Your task to perform on an android device: turn on translation in the chrome app Image 0: 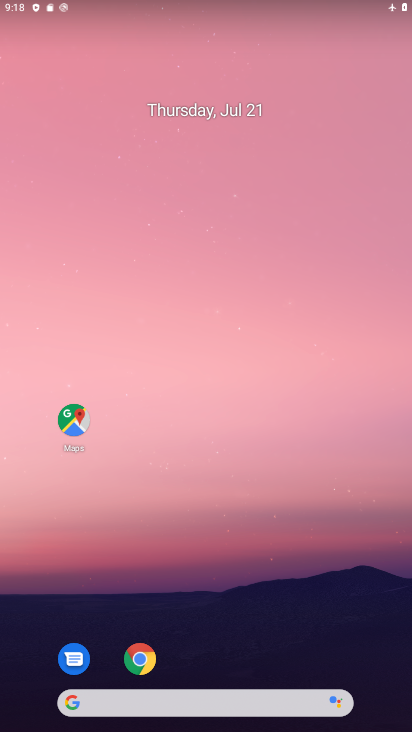
Step 0: drag from (190, 641) to (151, 6)
Your task to perform on an android device: turn on translation in the chrome app Image 1: 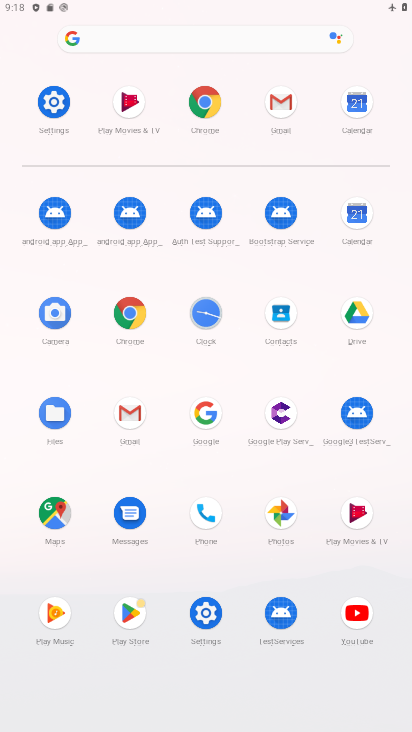
Step 1: click (195, 147)
Your task to perform on an android device: turn on translation in the chrome app Image 2: 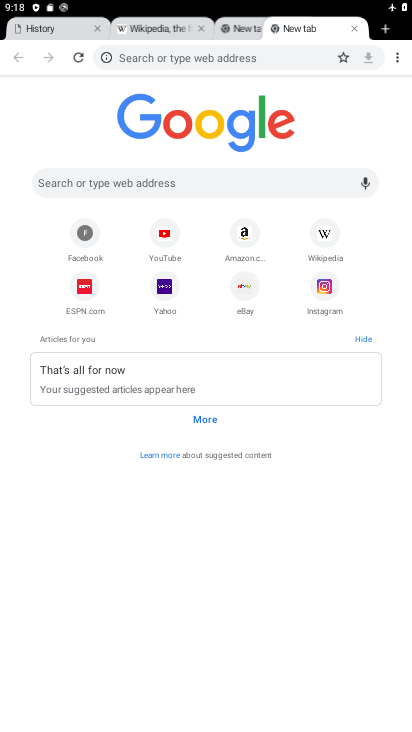
Step 2: click (391, 59)
Your task to perform on an android device: turn on translation in the chrome app Image 3: 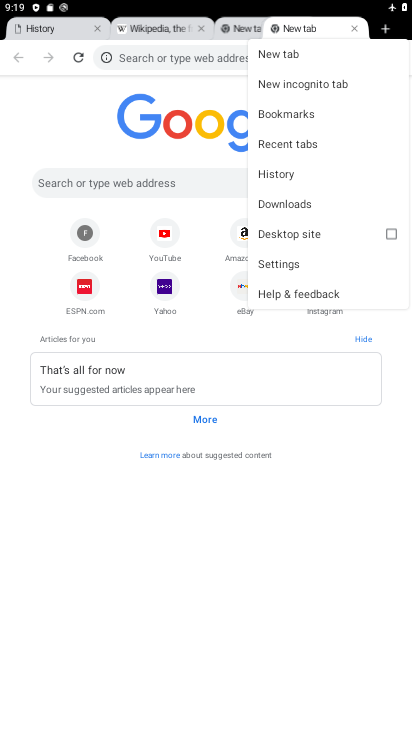
Step 3: click (278, 266)
Your task to perform on an android device: turn on translation in the chrome app Image 4: 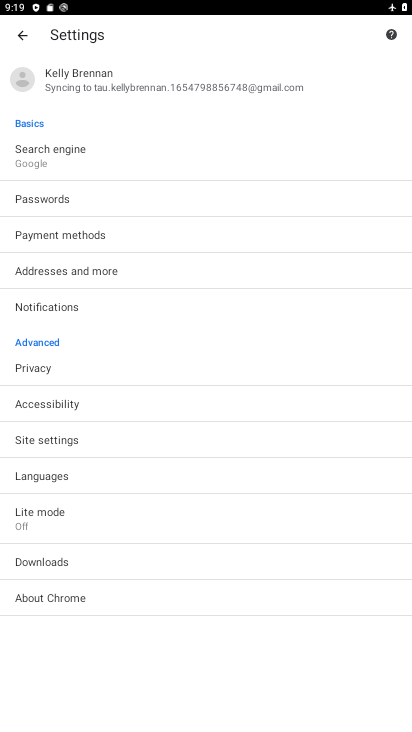
Step 4: click (53, 470)
Your task to perform on an android device: turn on translation in the chrome app Image 5: 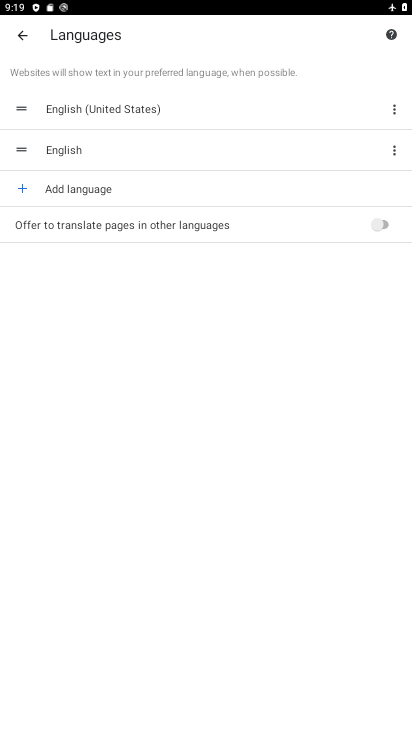
Step 5: click (383, 220)
Your task to perform on an android device: turn on translation in the chrome app Image 6: 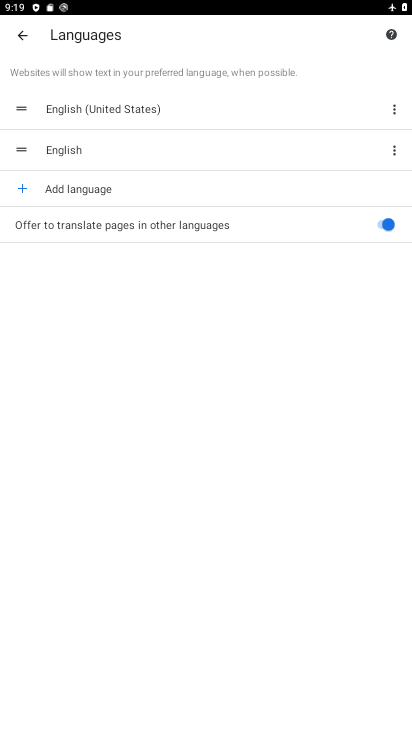
Step 6: task complete